Your task to perform on an android device: open app "Life360: Find Family & Friends" Image 0: 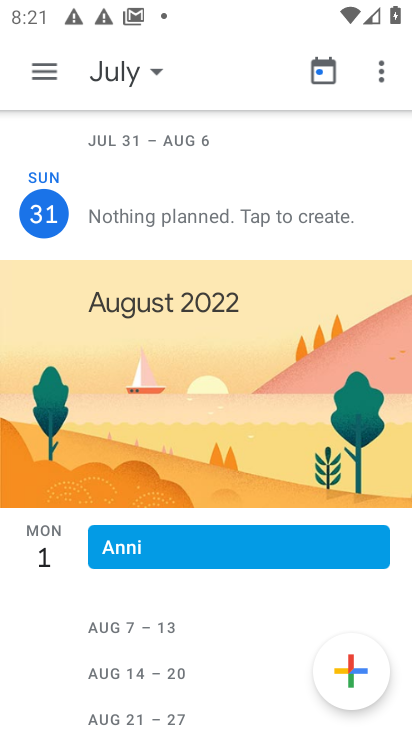
Step 0: press home button
Your task to perform on an android device: open app "Life360: Find Family & Friends" Image 1: 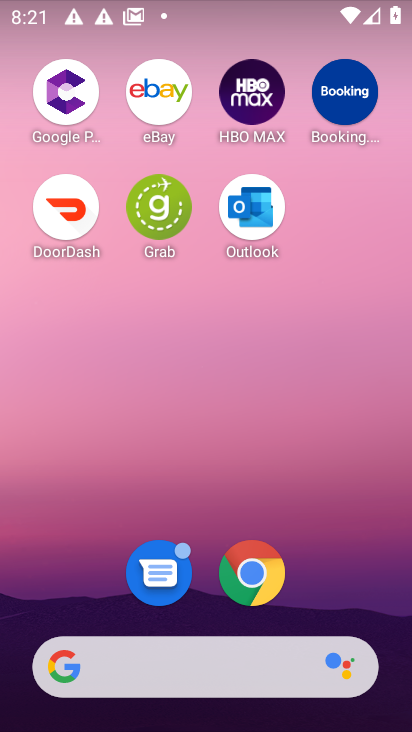
Step 1: drag from (218, 615) to (86, 51)
Your task to perform on an android device: open app "Life360: Find Family & Friends" Image 2: 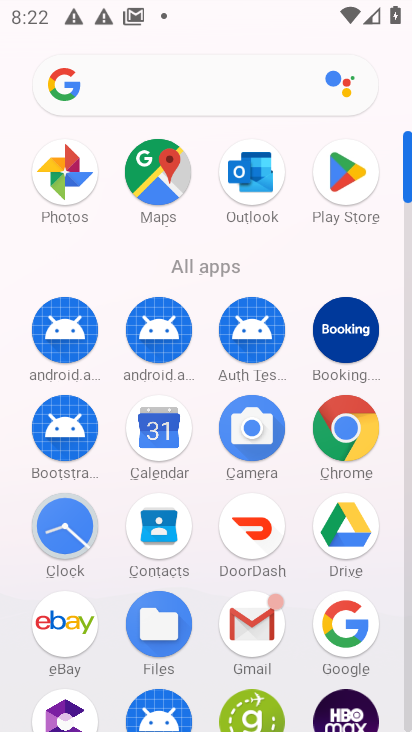
Step 2: click (322, 181)
Your task to perform on an android device: open app "Life360: Find Family & Friends" Image 3: 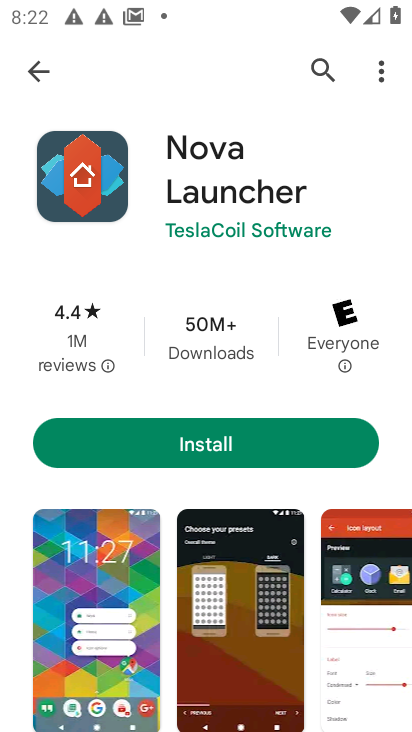
Step 3: click (46, 78)
Your task to perform on an android device: open app "Life360: Find Family & Friends" Image 4: 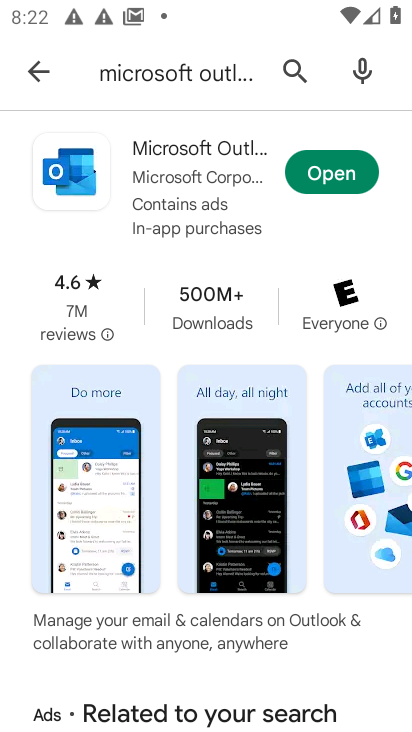
Step 4: click (175, 71)
Your task to perform on an android device: open app "Life360: Find Family & Friends" Image 5: 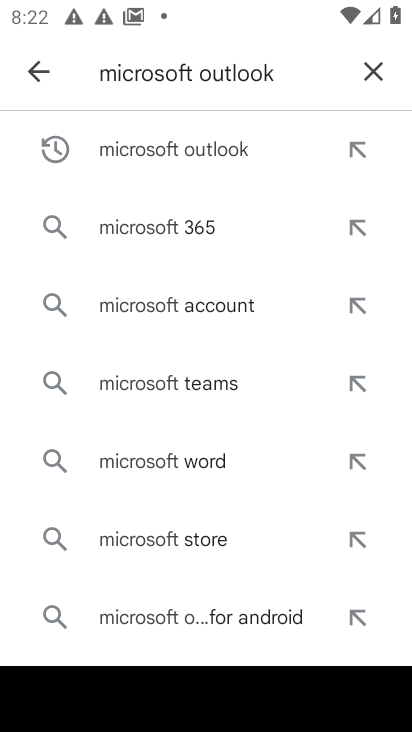
Step 5: click (372, 78)
Your task to perform on an android device: open app "Life360: Find Family & Friends" Image 6: 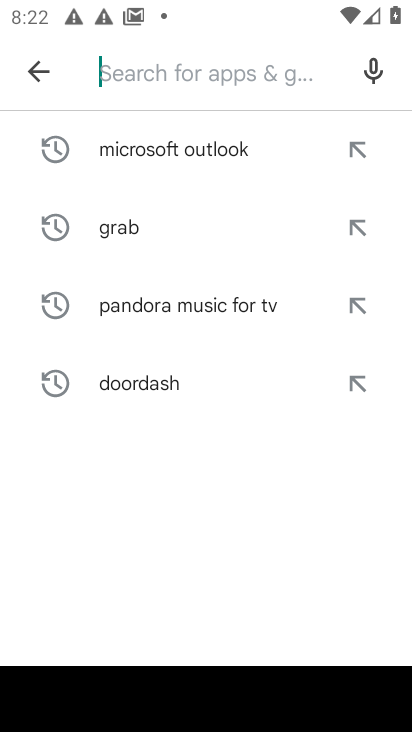
Step 6: type "life360"
Your task to perform on an android device: open app "Life360: Find Family & Friends" Image 7: 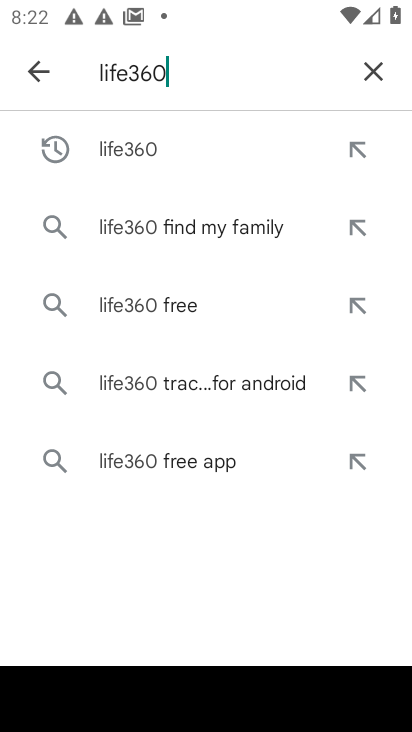
Step 7: click (160, 151)
Your task to perform on an android device: open app "Life360: Find Family & Friends" Image 8: 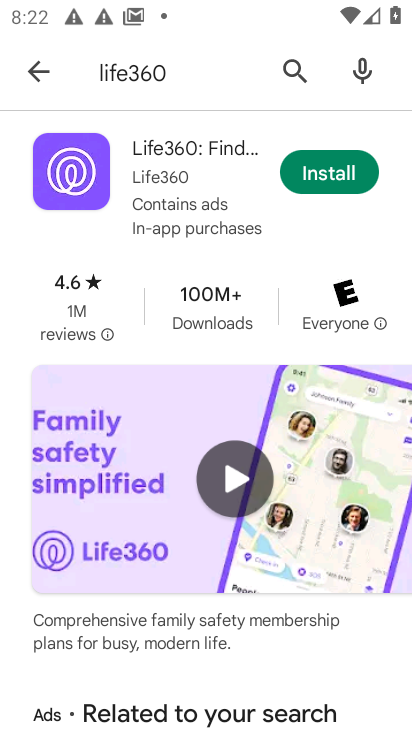
Step 8: task complete